Your task to perform on an android device: turn off wifi Image 0: 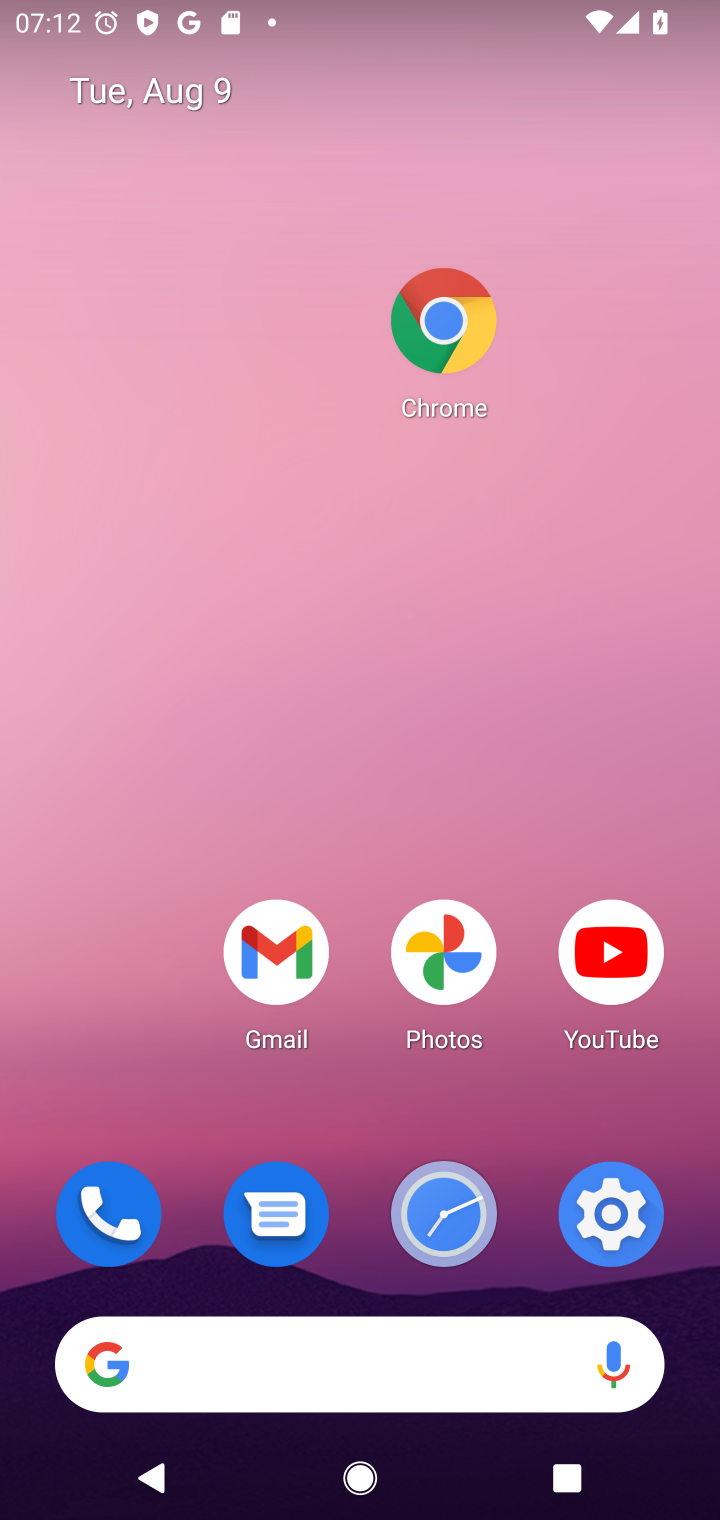
Step 0: press home button
Your task to perform on an android device: turn off wifi Image 1: 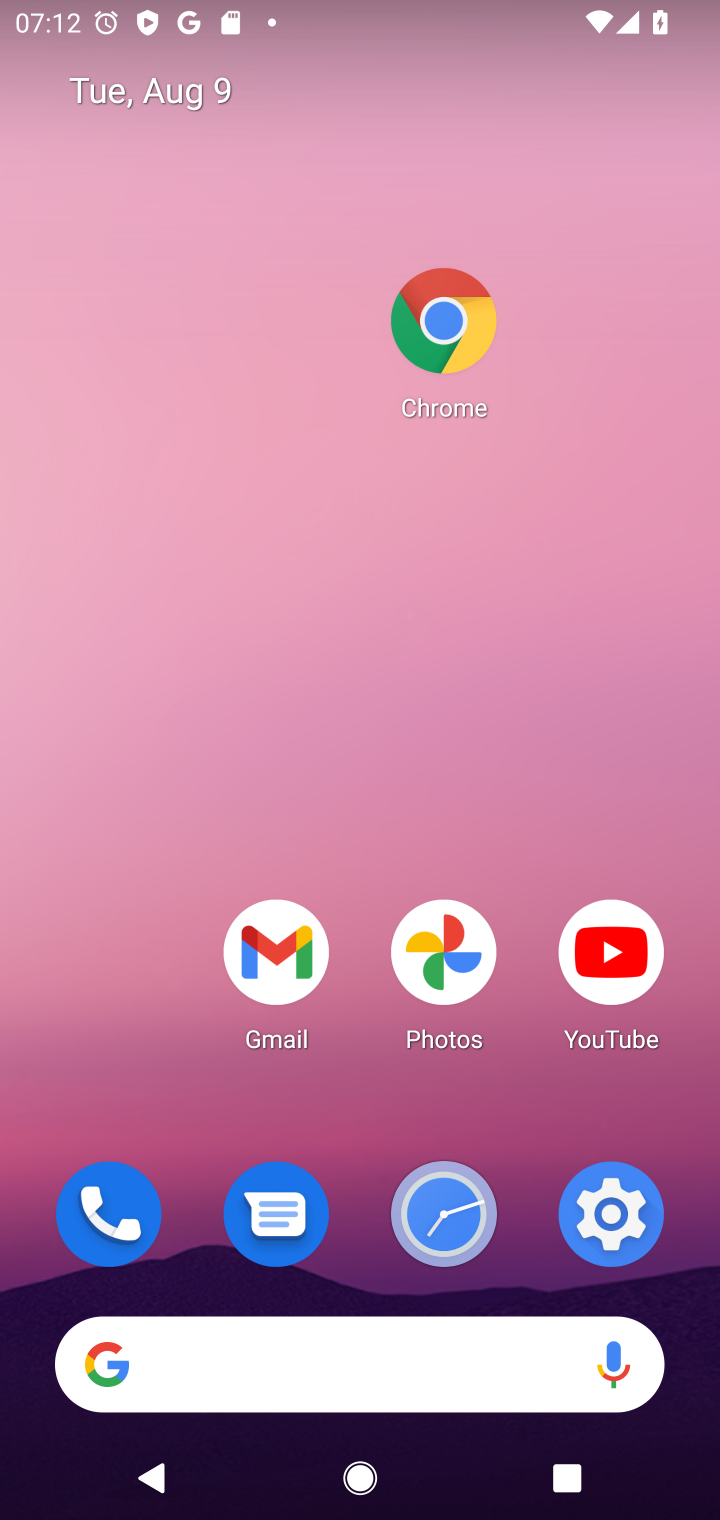
Step 1: click (616, 1220)
Your task to perform on an android device: turn off wifi Image 2: 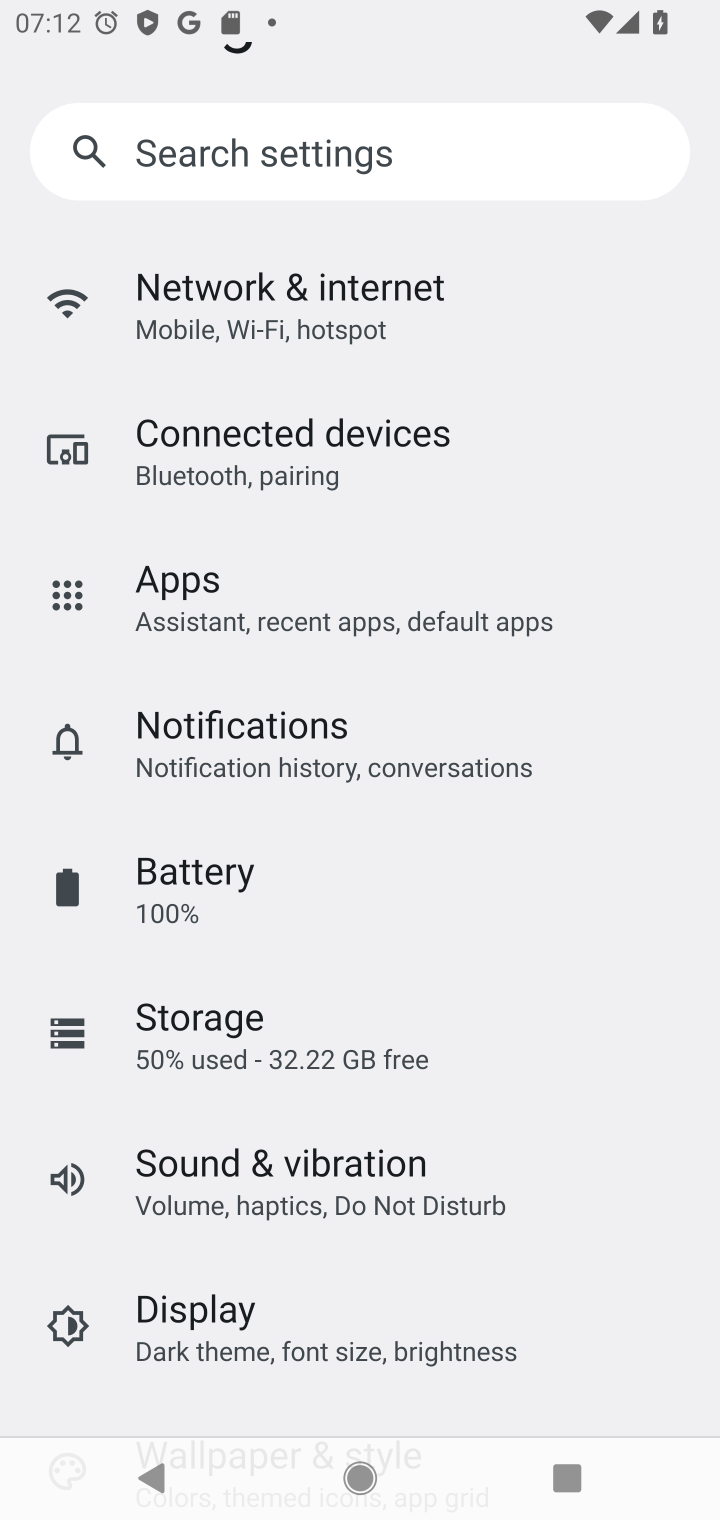
Step 2: click (315, 330)
Your task to perform on an android device: turn off wifi Image 3: 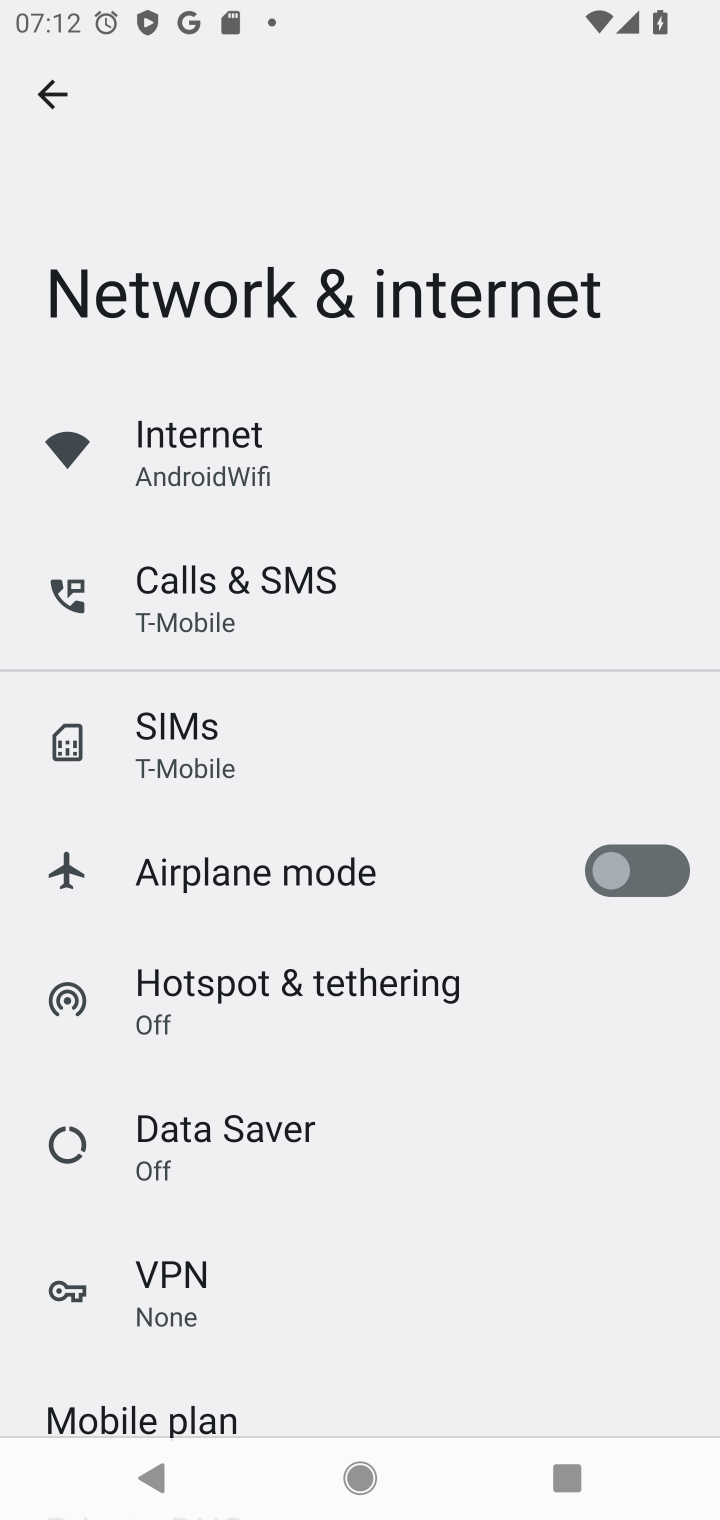
Step 3: click (245, 461)
Your task to perform on an android device: turn off wifi Image 4: 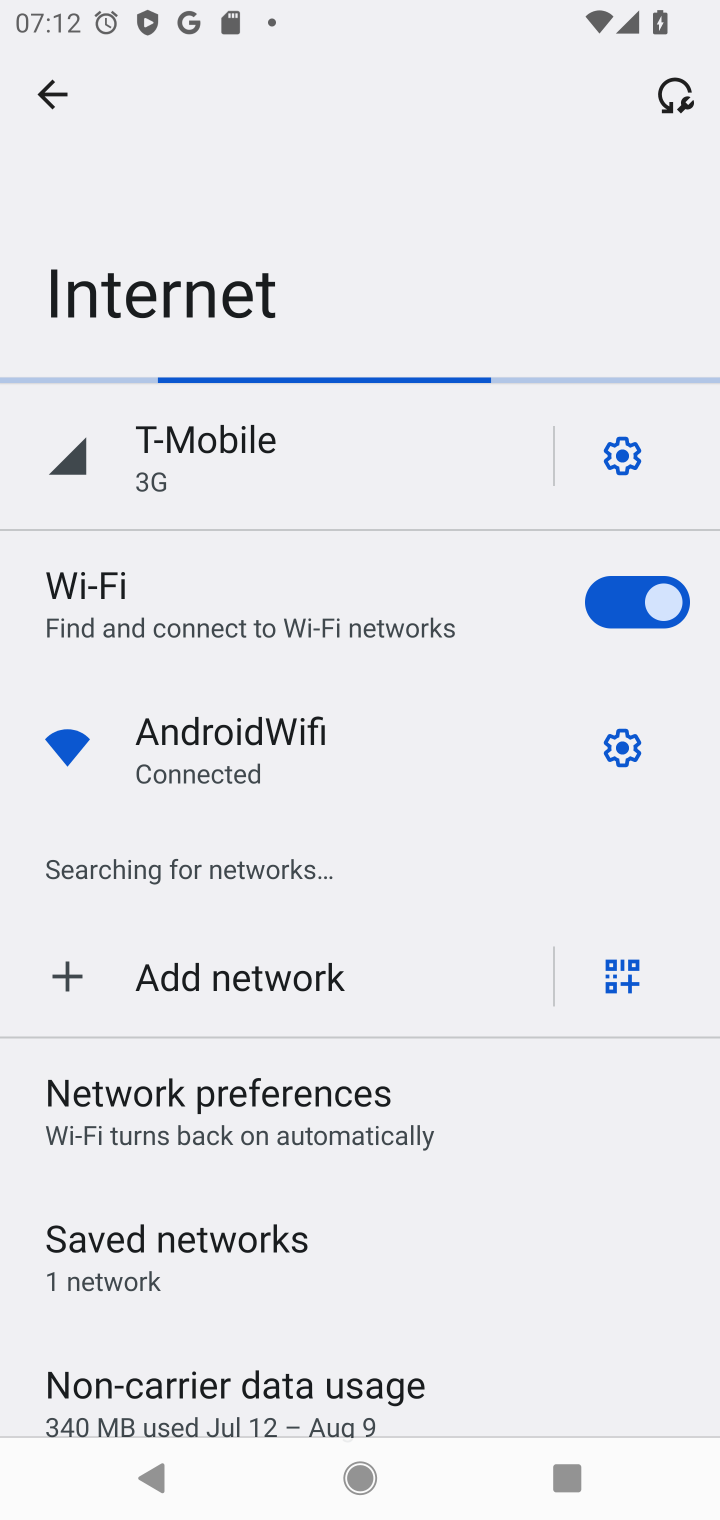
Step 4: click (626, 603)
Your task to perform on an android device: turn off wifi Image 5: 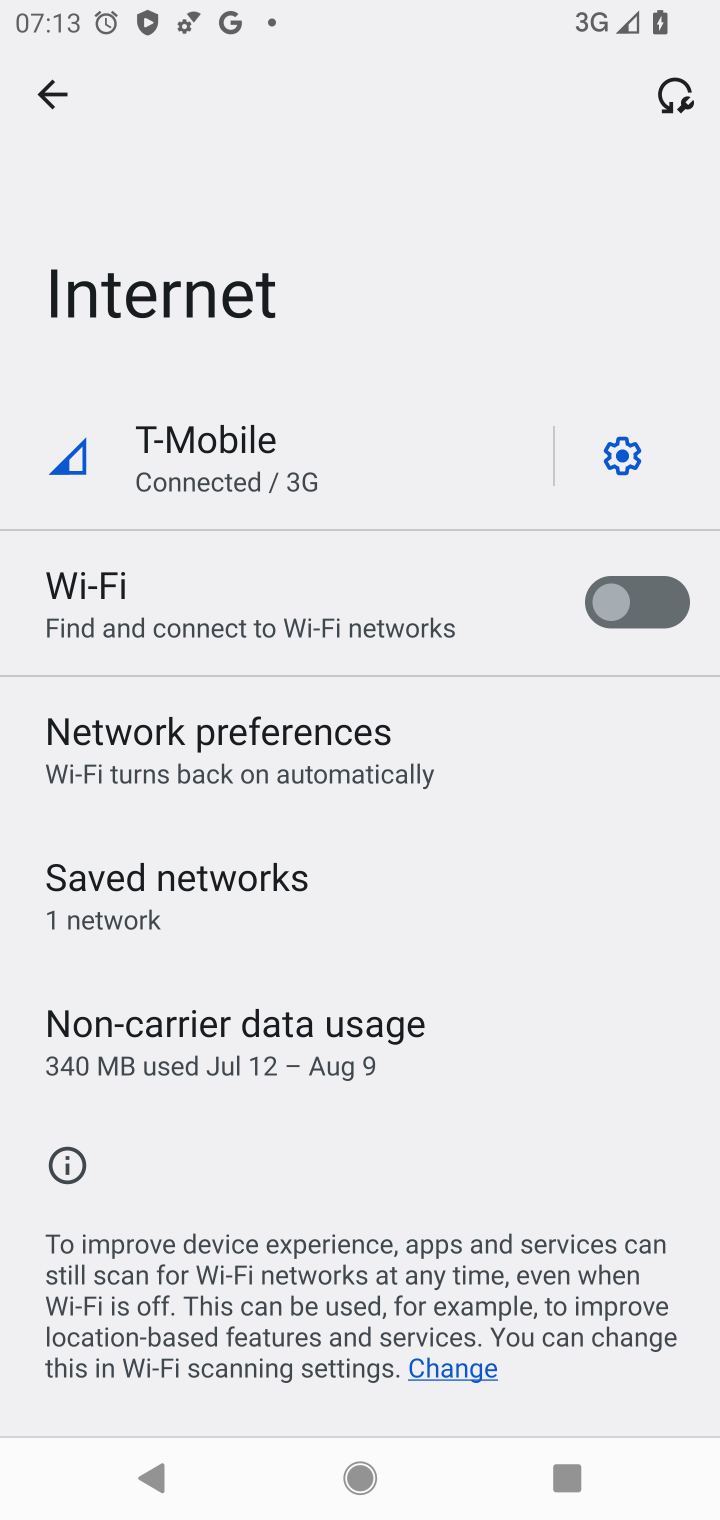
Step 5: task complete